Your task to perform on an android device: open app "Adobe Express: Graphic Design" Image 0: 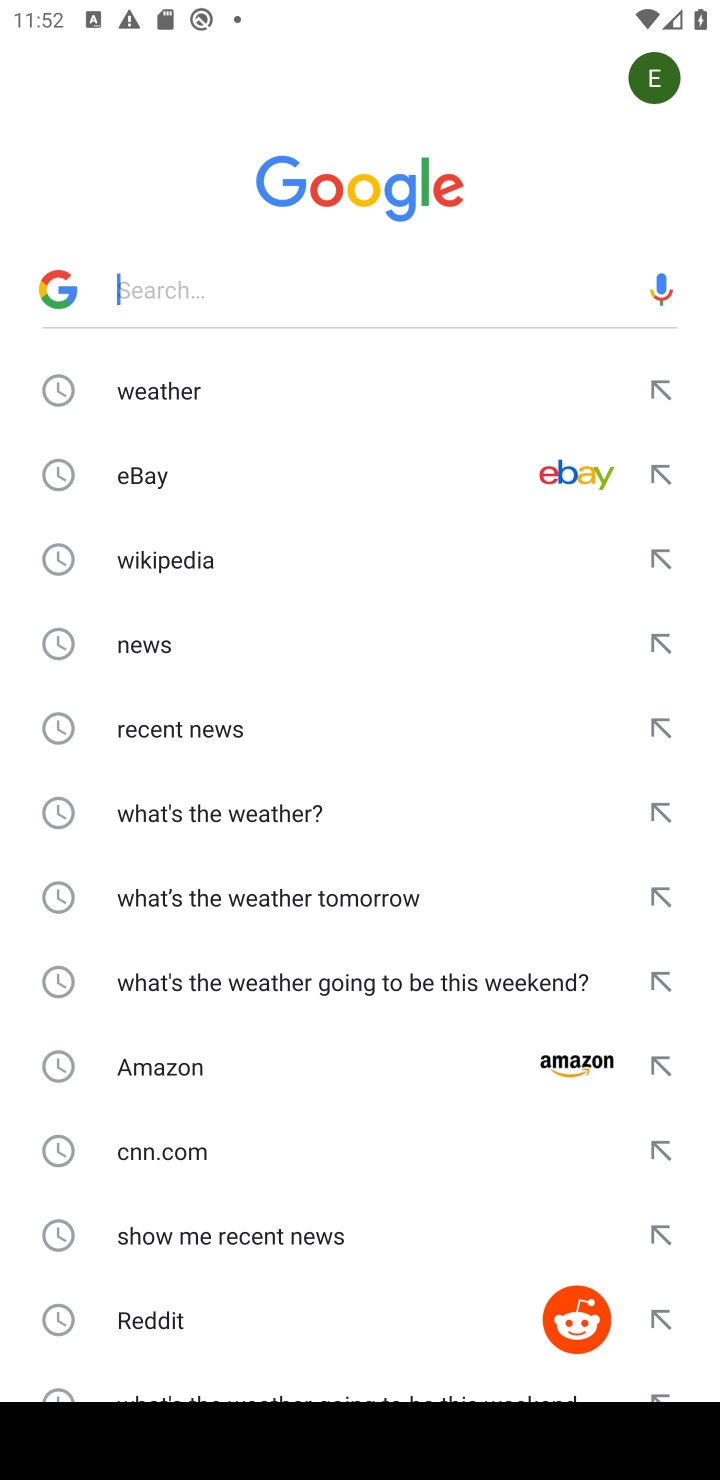
Step 0: press home button
Your task to perform on an android device: open app "Adobe Express: Graphic Design" Image 1: 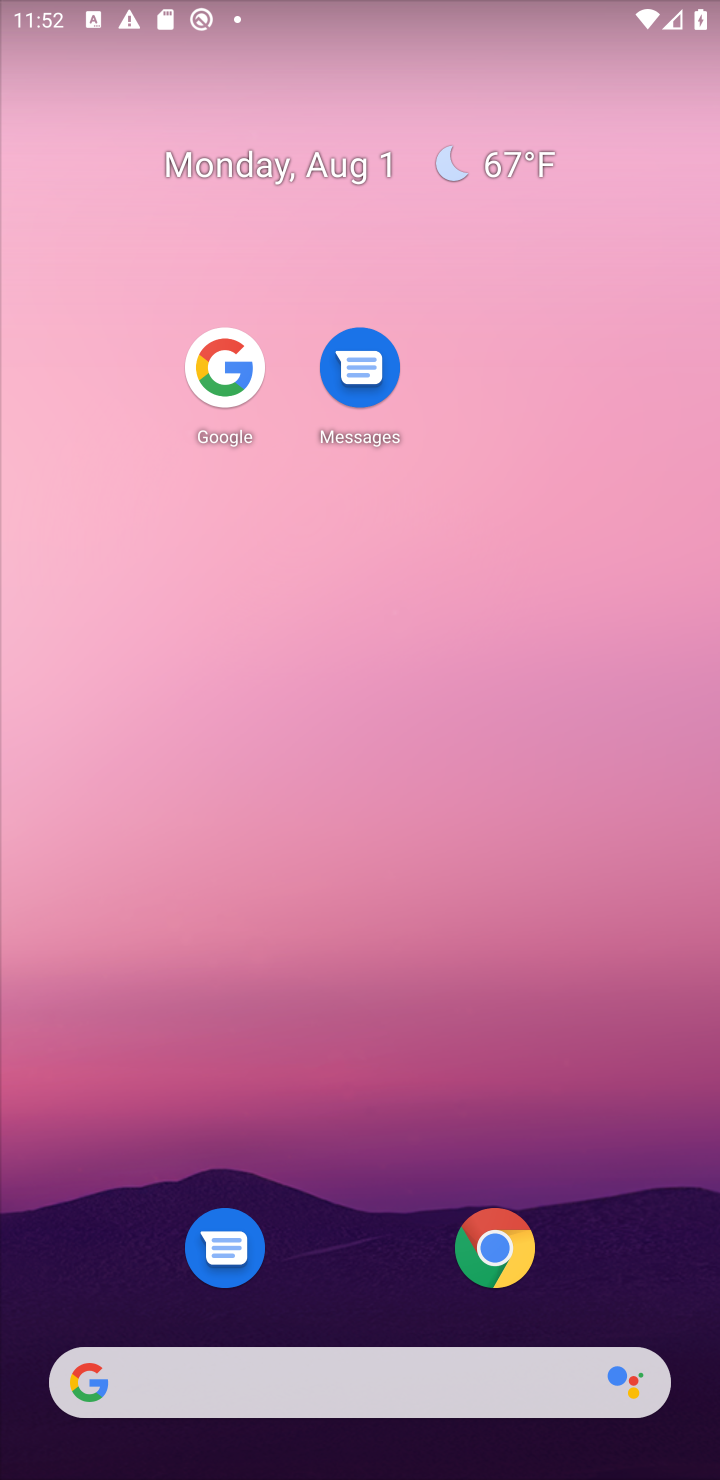
Step 1: drag from (320, 1124) to (364, 93)
Your task to perform on an android device: open app "Adobe Express: Graphic Design" Image 2: 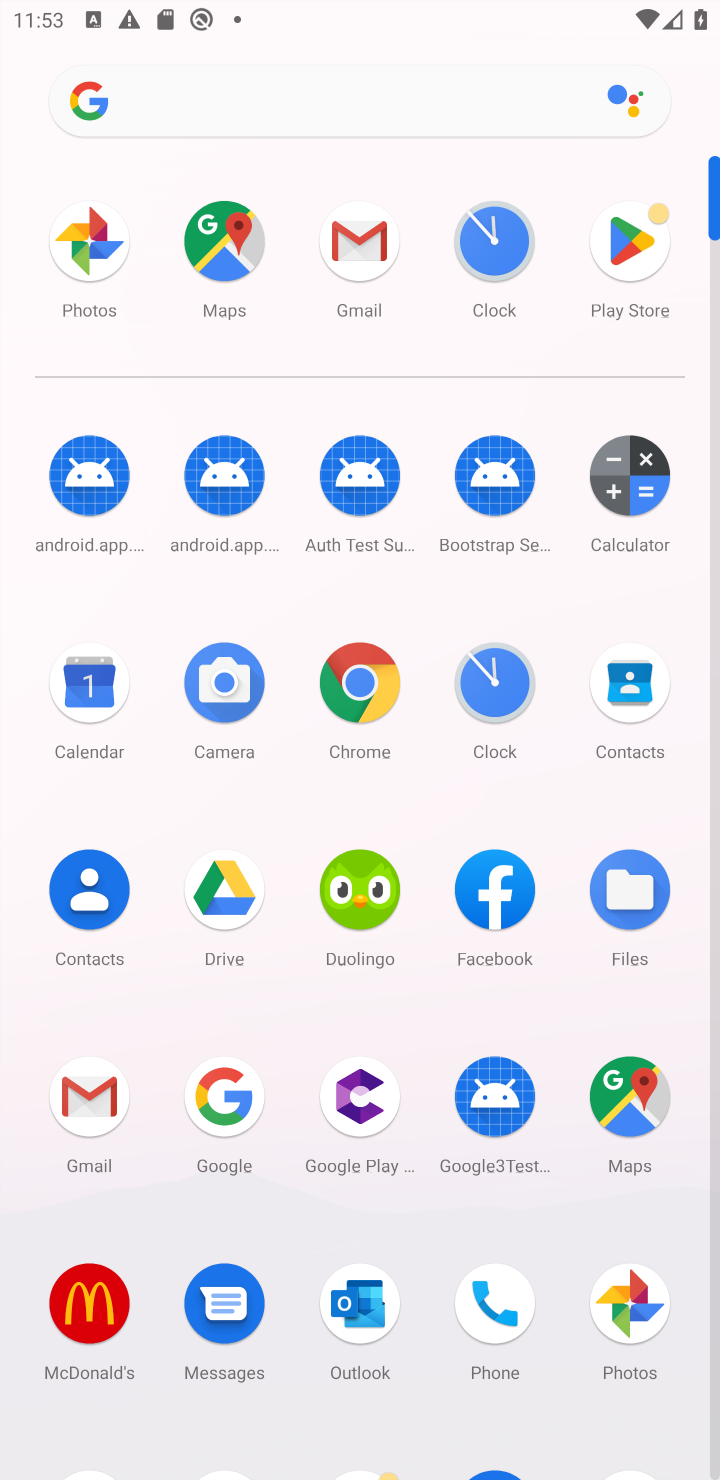
Step 2: drag from (429, 1235) to (436, 445)
Your task to perform on an android device: open app "Adobe Express: Graphic Design" Image 3: 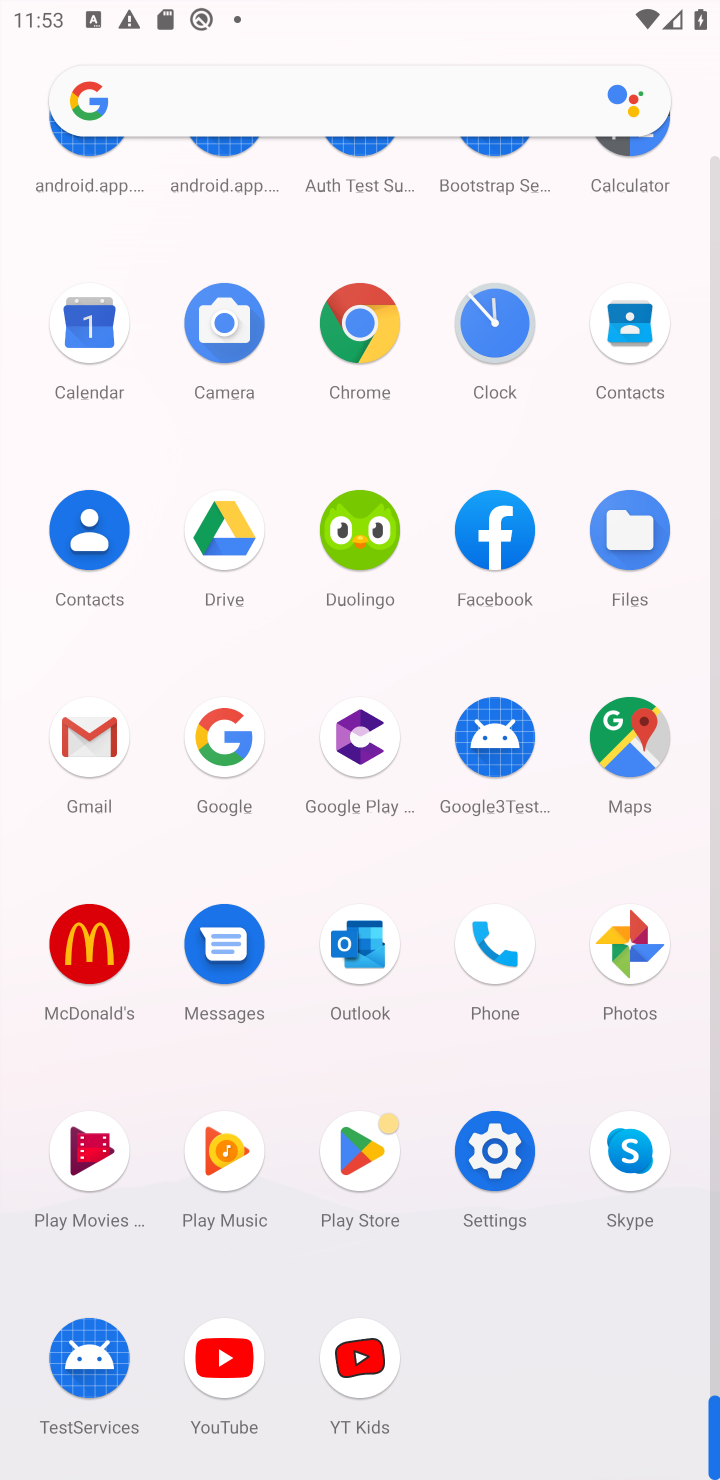
Step 3: click (370, 1134)
Your task to perform on an android device: open app "Adobe Express: Graphic Design" Image 4: 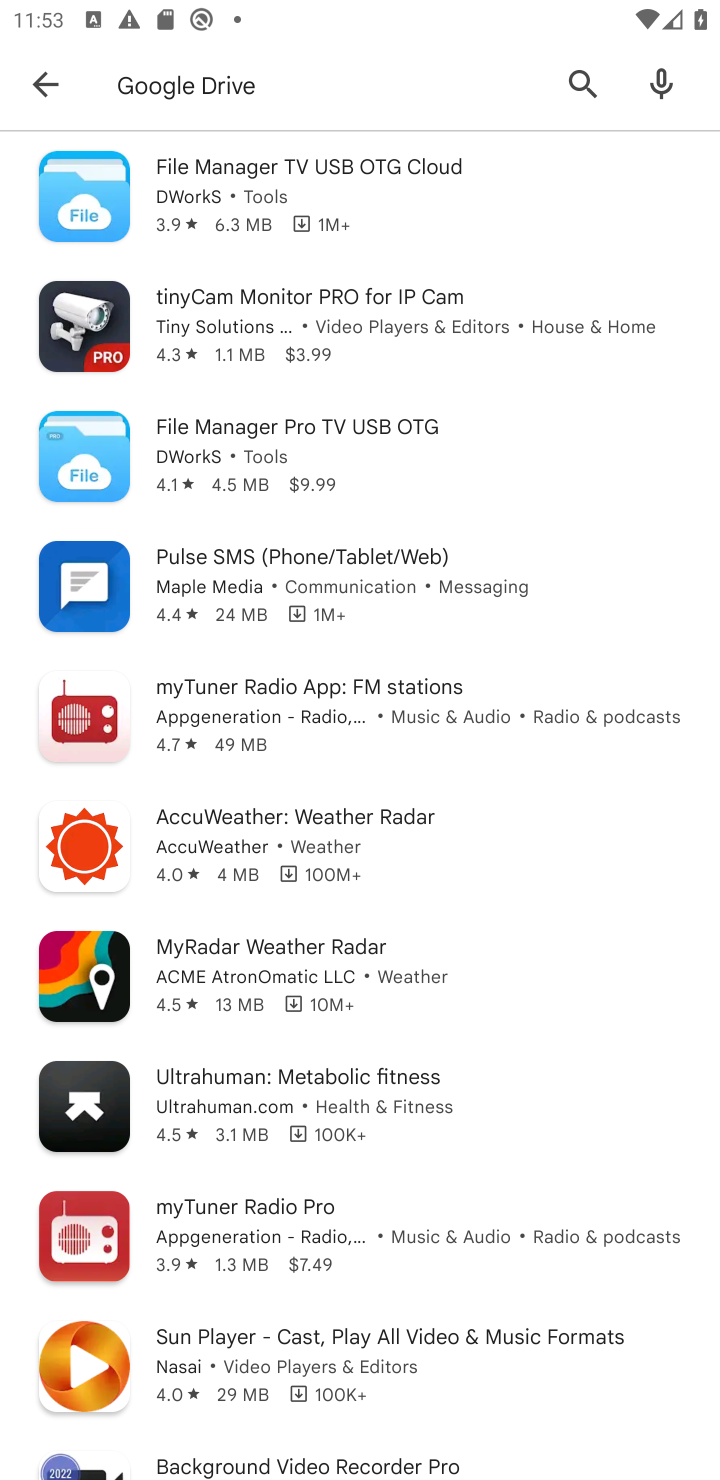
Step 4: click (338, 69)
Your task to perform on an android device: open app "Adobe Express: Graphic Design" Image 5: 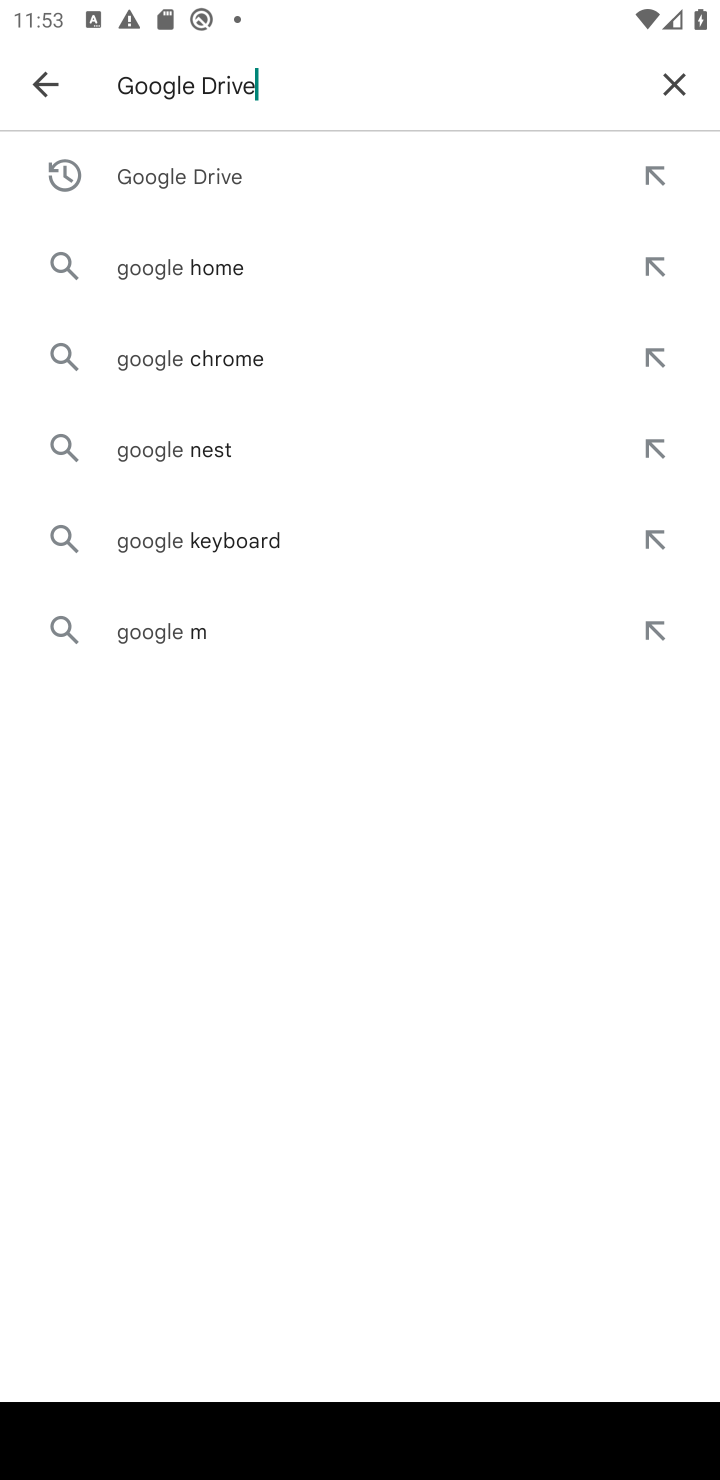
Step 5: click (680, 75)
Your task to perform on an android device: open app "Adobe Express: Graphic Design" Image 6: 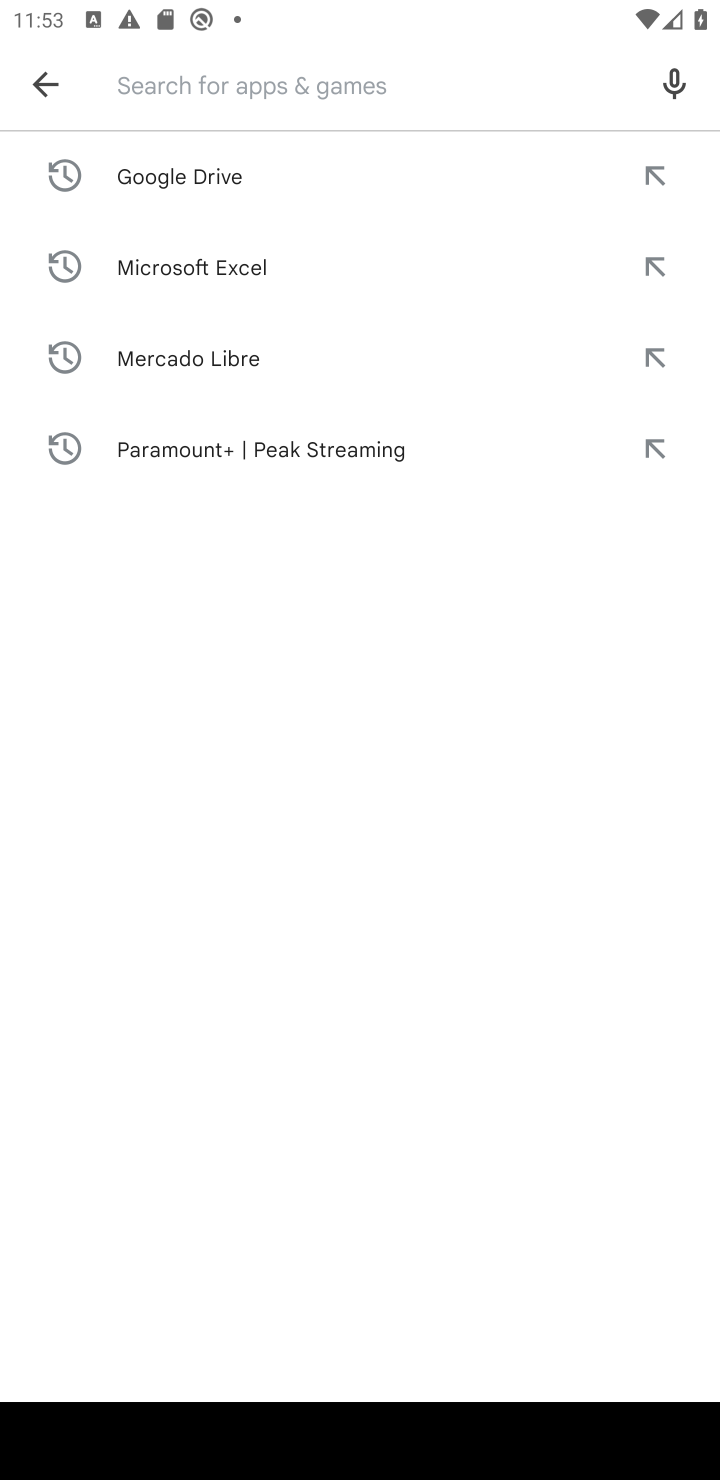
Step 6: type "Adobe Express: Graphic Design"
Your task to perform on an android device: open app "Adobe Express: Graphic Design" Image 7: 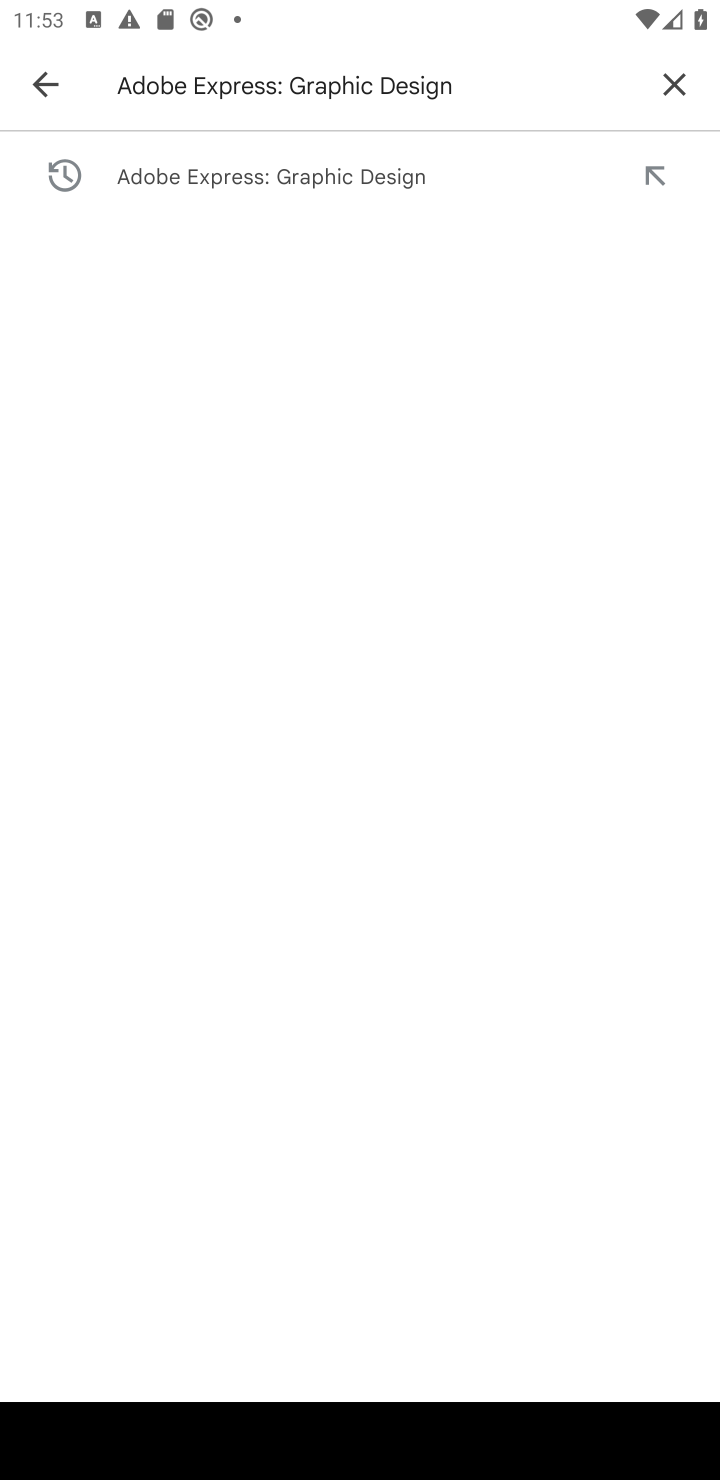
Step 7: press enter
Your task to perform on an android device: open app "Adobe Express: Graphic Design" Image 8: 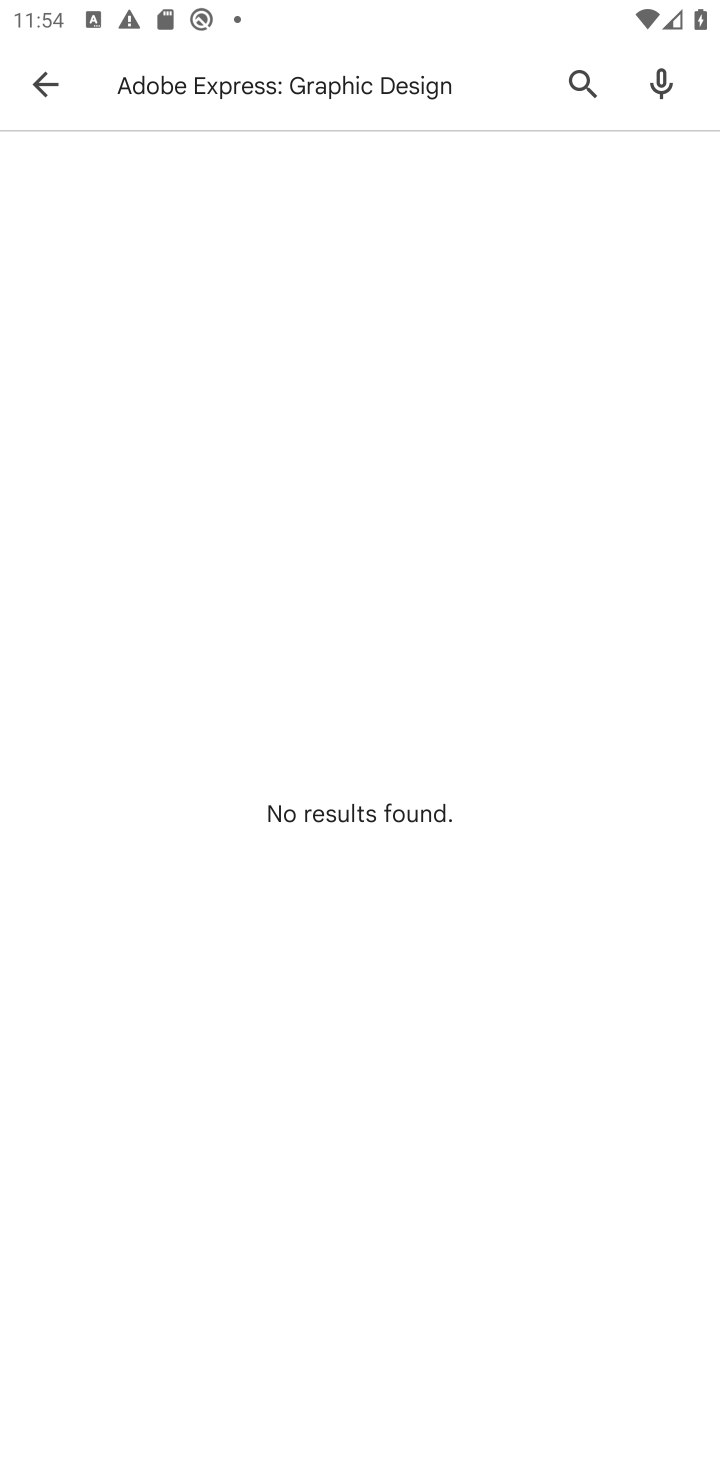
Step 8: task complete